Your task to perform on an android device: open a bookmark in the chrome app Image 0: 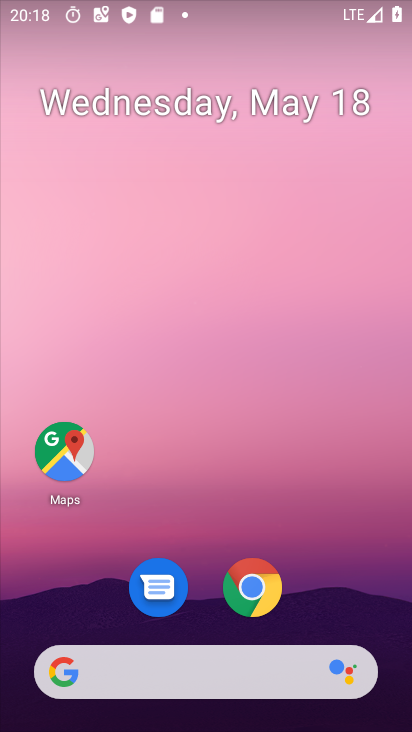
Step 0: click (259, 590)
Your task to perform on an android device: open a bookmark in the chrome app Image 1: 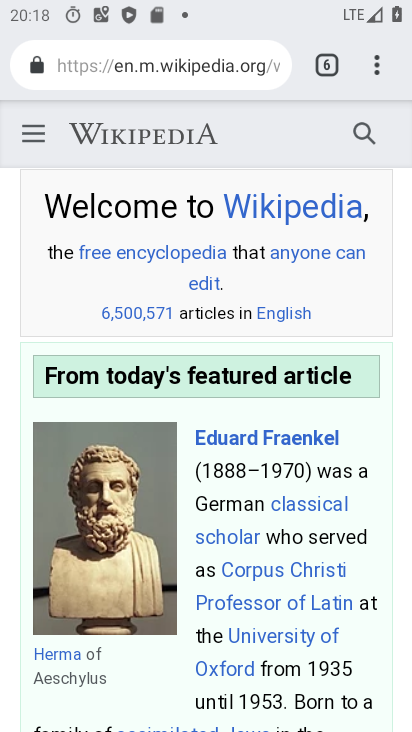
Step 1: click (392, 68)
Your task to perform on an android device: open a bookmark in the chrome app Image 2: 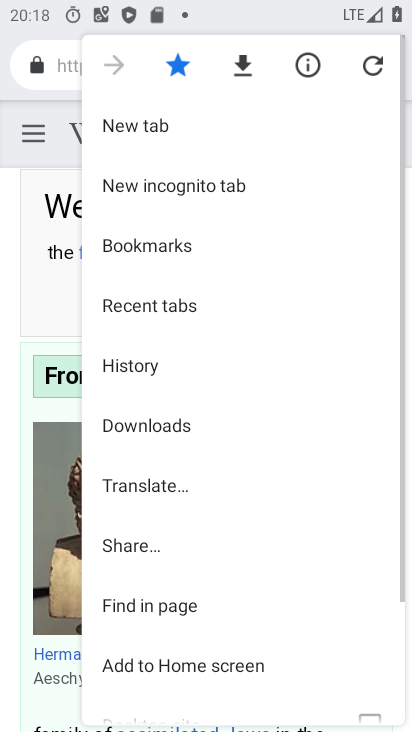
Step 2: click (191, 246)
Your task to perform on an android device: open a bookmark in the chrome app Image 3: 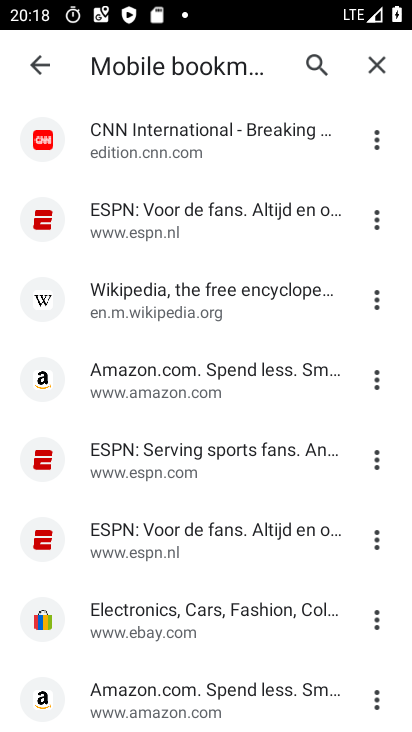
Step 3: click (165, 282)
Your task to perform on an android device: open a bookmark in the chrome app Image 4: 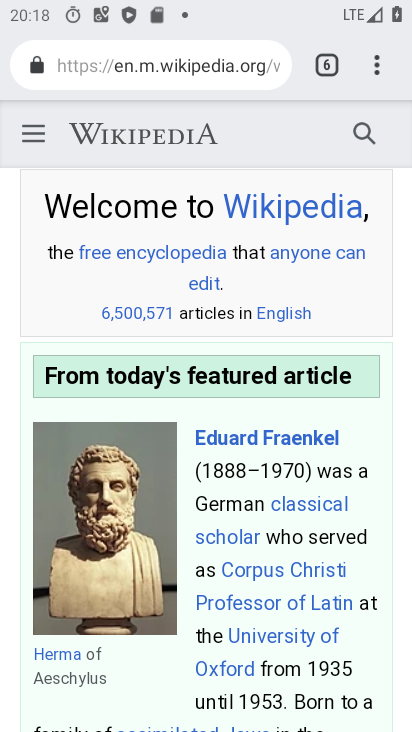
Step 4: task complete